Your task to perform on an android device: Open Google Chrome and click the shortcut for Amazon.com Image 0: 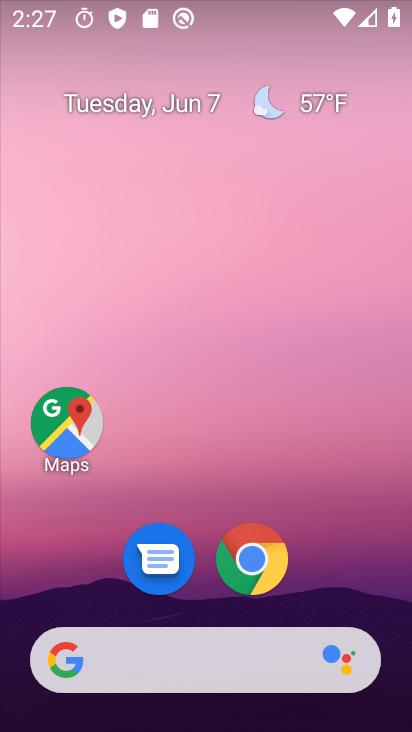
Step 0: drag from (367, 590) to (272, 33)
Your task to perform on an android device: Open Google Chrome and click the shortcut for Amazon.com Image 1: 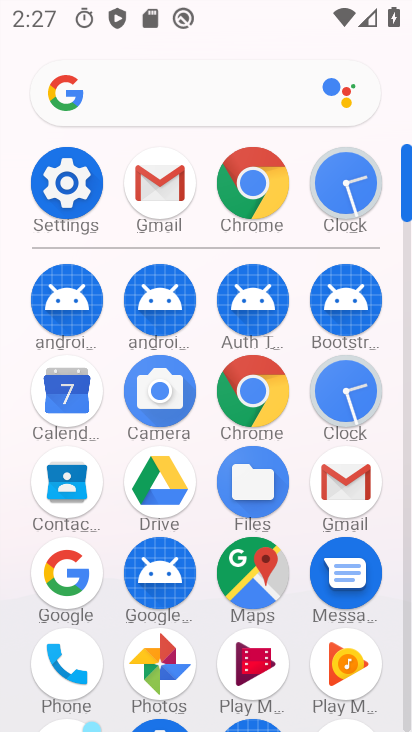
Step 1: drag from (8, 614) to (21, 235)
Your task to perform on an android device: Open Google Chrome and click the shortcut for Amazon.com Image 2: 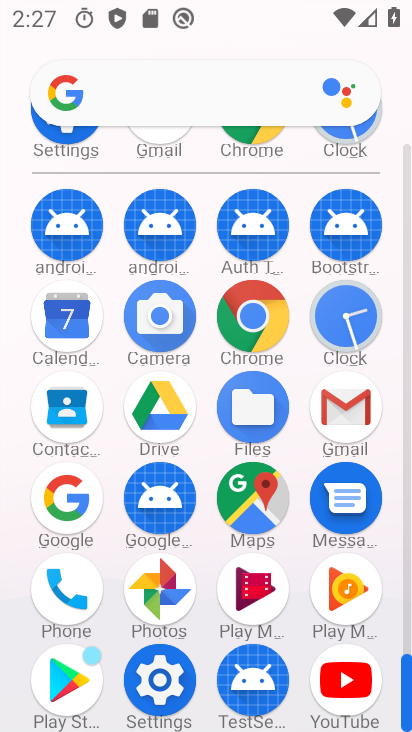
Step 2: click (251, 310)
Your task to perform on an android device: Open Google Chrome and click the shortcut for Amazon.com Image 3: 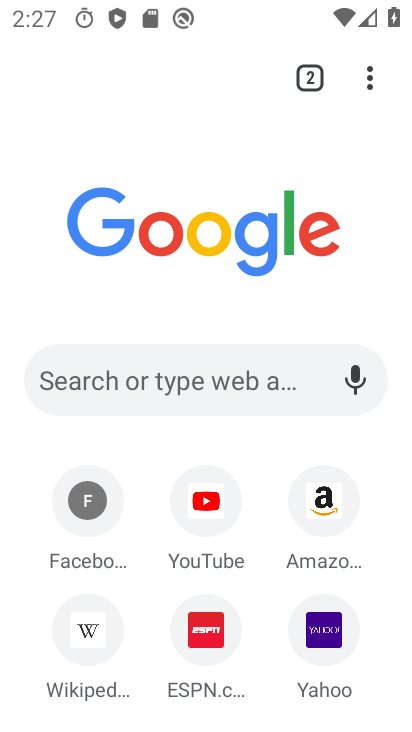
Step 3: click (326, 509)
Your task to perform on an android device: Open Google Chrome and click the shortcut for Amazon.com Image 4: 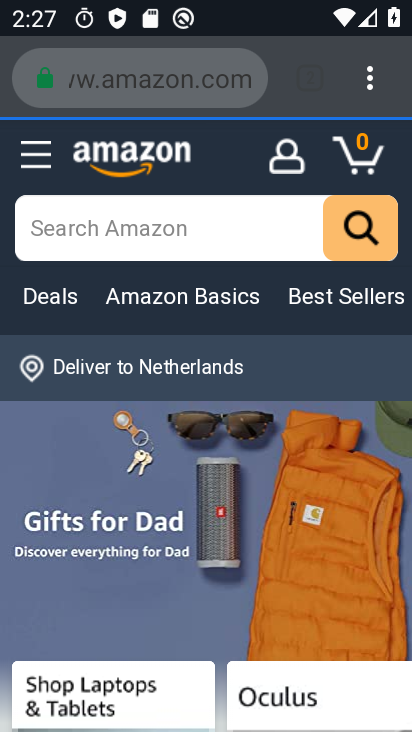
Step 4: drag from (373, 73) to (220, 467)
Your task to perform on an android device: Open Google Chrome and click the shortcut for Amazon.com Image 5: 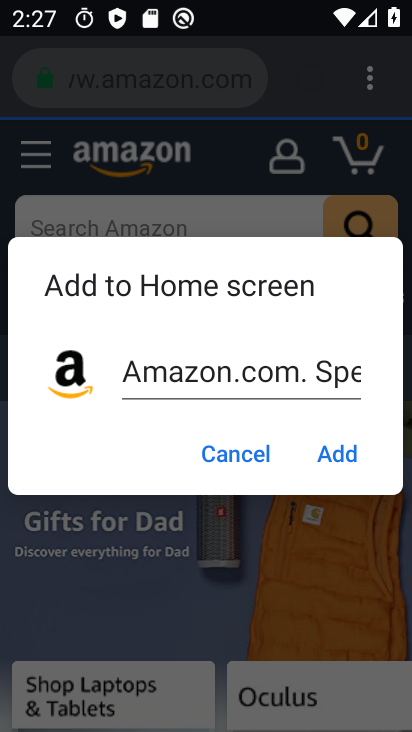
Step 5: click (344, 451)
Your task to perform on an android device: Open Google Chrome and click the shortcut for Amazon.com Image 6: 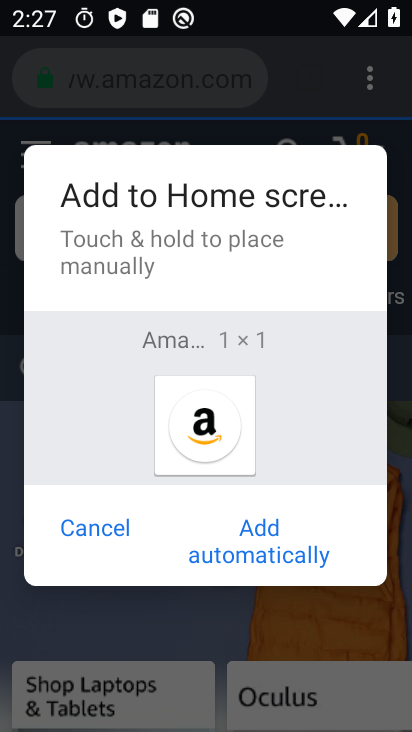
Step 6: click (248, 531)
Your task to perform on an android device: Open Google Chrome and click the shortcut for Amazon.com Image 7: 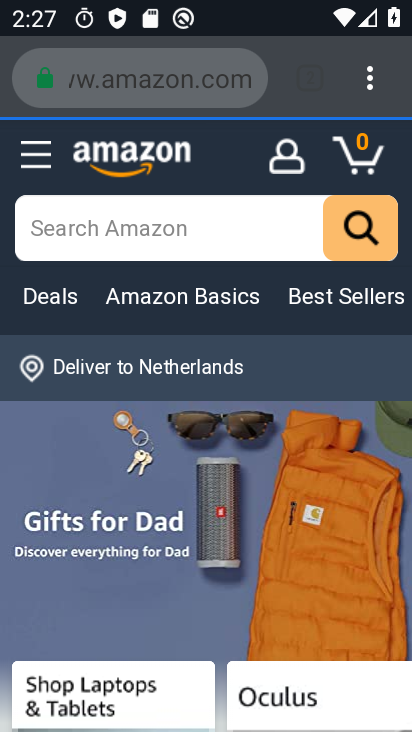
Step 7: task complete